Your task to perform on an android device: Go to CNN.com Image 0: 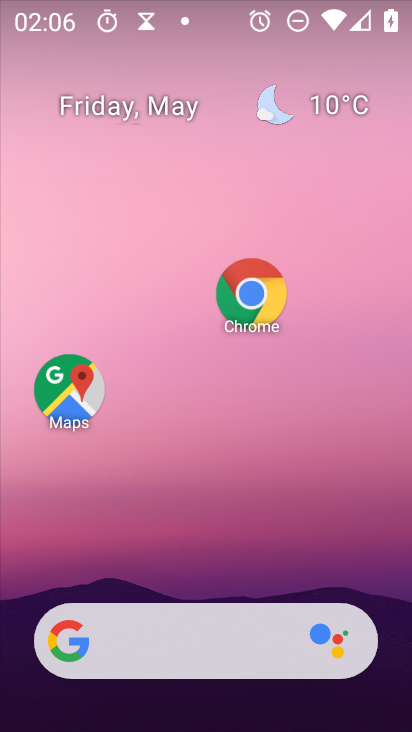
Step 0: press home button
Your task to perform on an android device: Go to CNN.com Image 1: 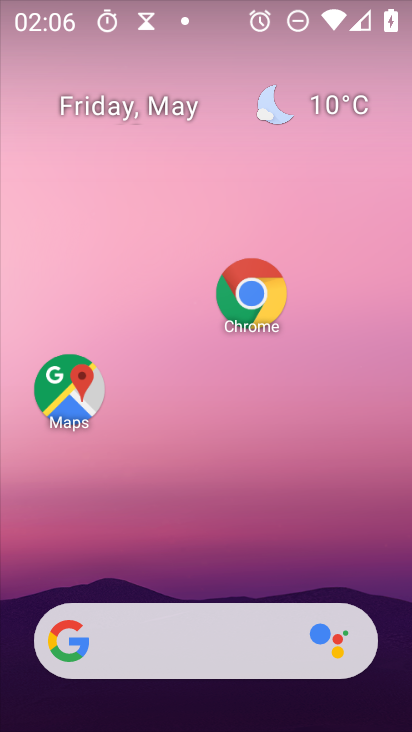
Step 1: click (253, 295)
Your task to perform on an android device: Go to CNN.com Image 2: 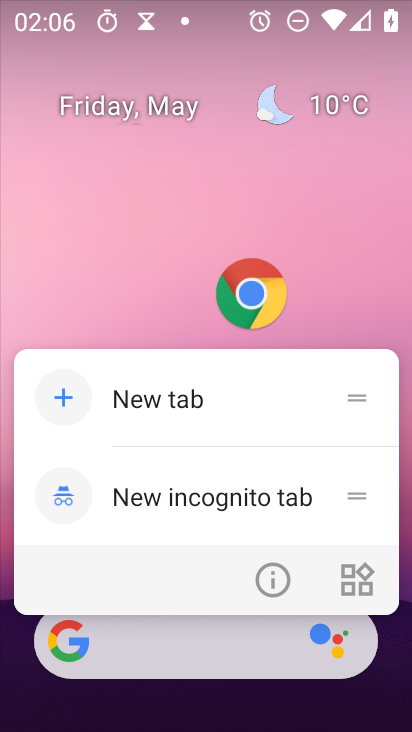
Step 2: click (259, 302)
Your task to perform on an android device: Go to CNN.com Image 3: 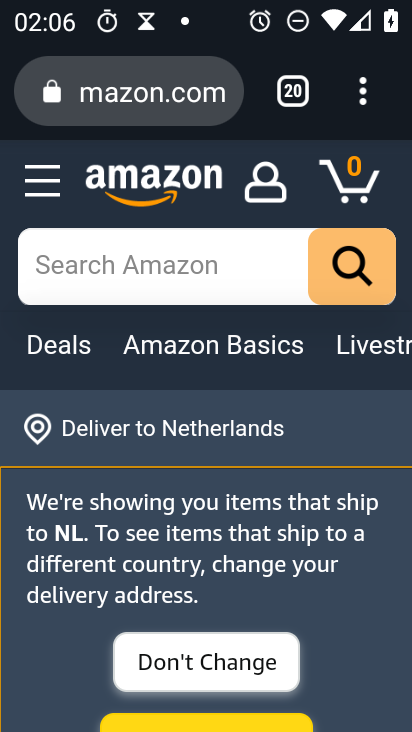
Step 3: drag from (366, 95) to (239, 172)
Your task to perform on an android device: Go to CNN.com Image 4: 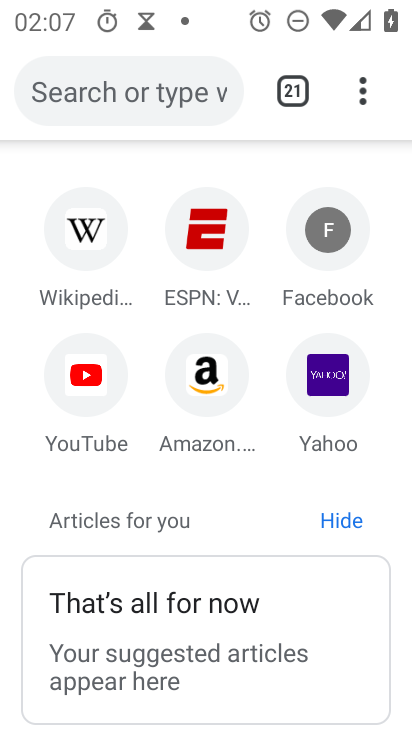
Step 4: click (64, 91)
Your task to perform on an android device: Go to CNN.com Image 5: 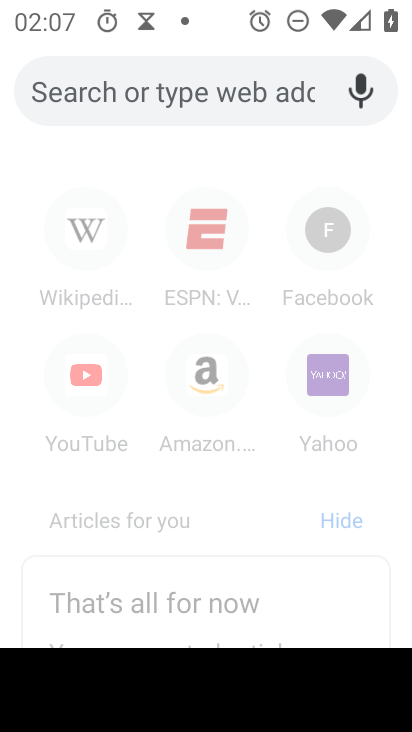
Step 5: type "cnn.com"
Your task to perform on an android device: Go to CNN.com Image 6: 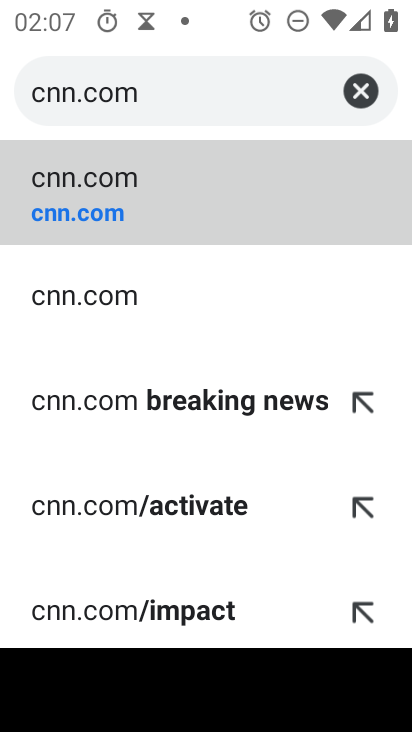
Step 6: click (166, 214)
Your task to perform on an android device: Go to CNN.com Image 7: 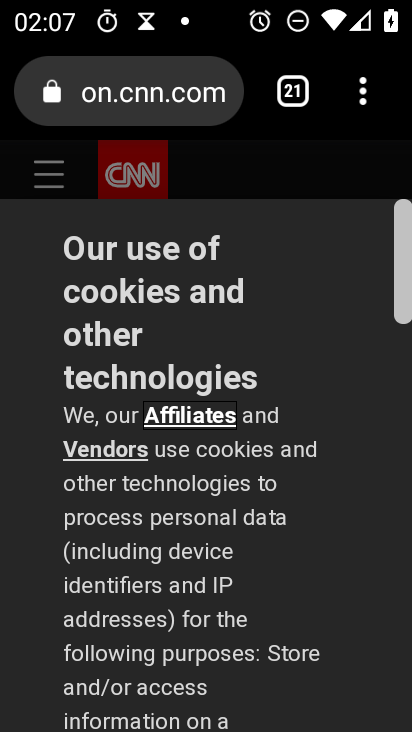
Step 7: task complete